Your task to perform on an android device: Open display settings Image 0: 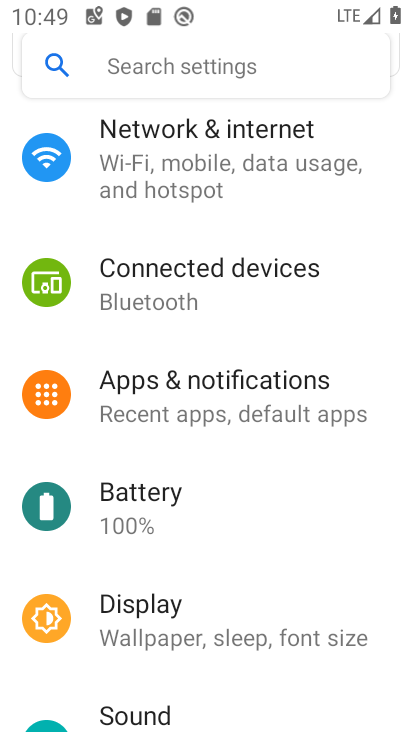
Step 0: click (189, 622)
Your task to perform on an android device: Open display settings Image 1: 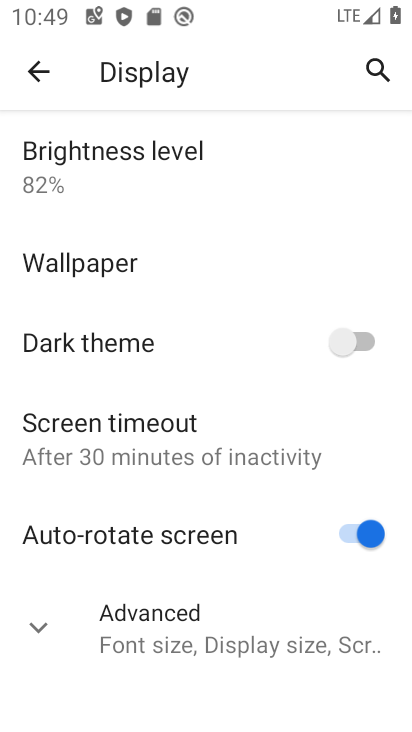
Step 1: task complete